Your task to perform on an android device: toggle notifications settings in the gmail app Image 0: 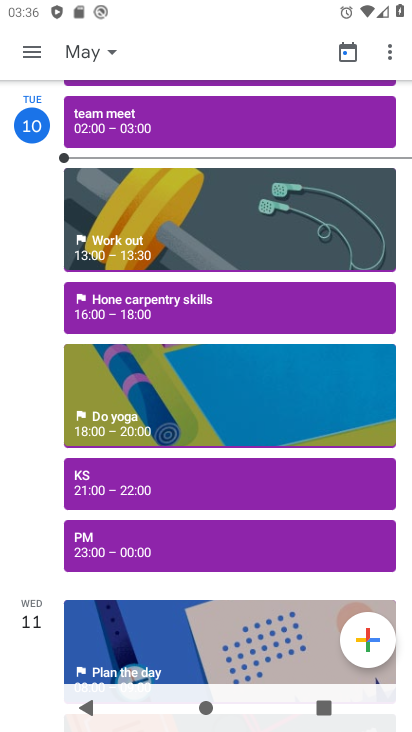
Step 0: press home button
Your task to perform on an android device: toggle notifications settings in the gmail app Image 1: 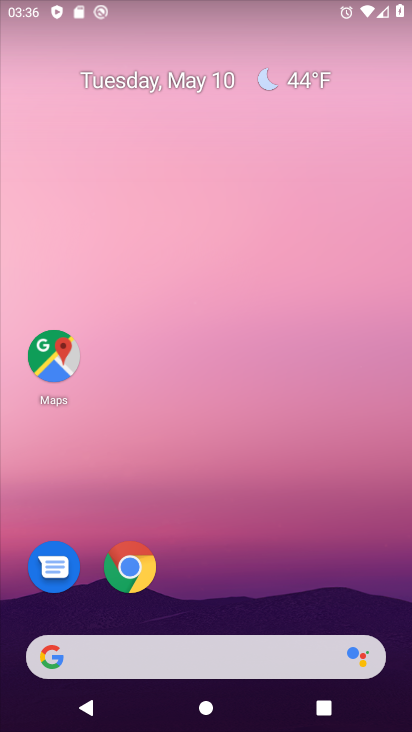
Step 1: drag from (209, 583) to (253, 111)
Your task to perform on an android device: toggle notifications settings in the gmail app Image 2: 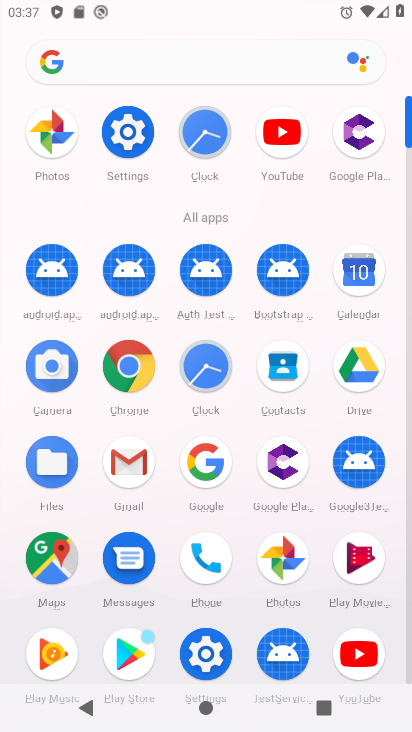
Step 2: click (127, 470)
Your task to perform on an android device: toggle notifications settings in the gmail app Image 3: 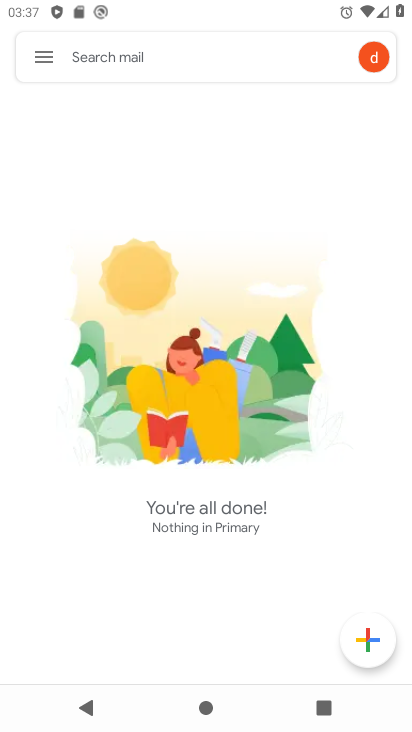
Step 3: click (43, 60)
Your task to perform on an android device: toggle notifications settings in the gmail app Image 4: 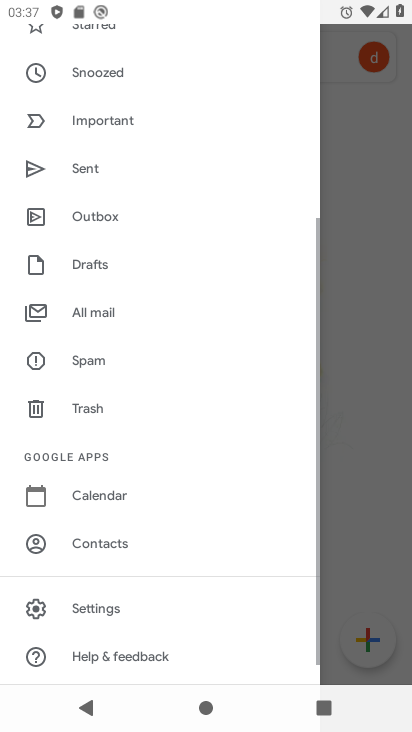
Step 4: click (97, 602)
Your task to perform on an android device: toggle notifications settings in the gmail app Image 5: 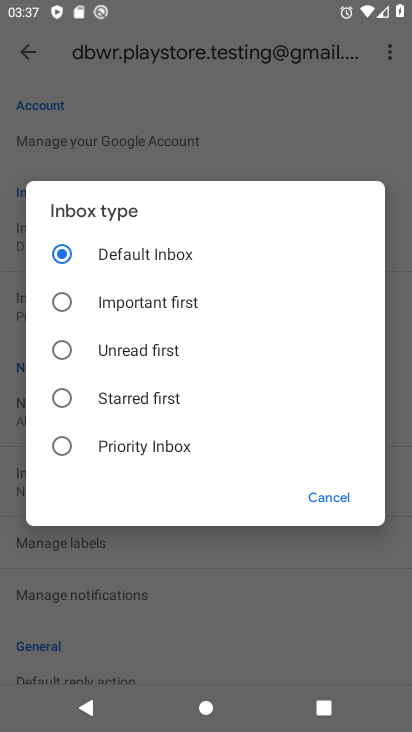
Step 5: click (330, 483)
Your task to perform on an android device: toggle notifications settings in the gmail app Image 6: 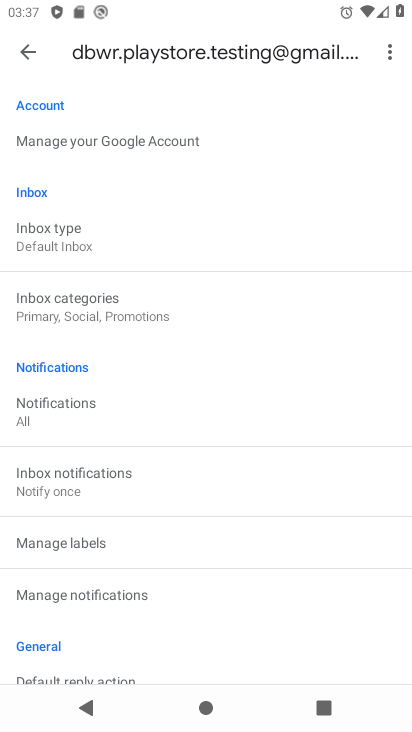
Step 6: click (73, 413)
Your task to perform on an android device: toggle notifications settings in the gmail app Image 7: 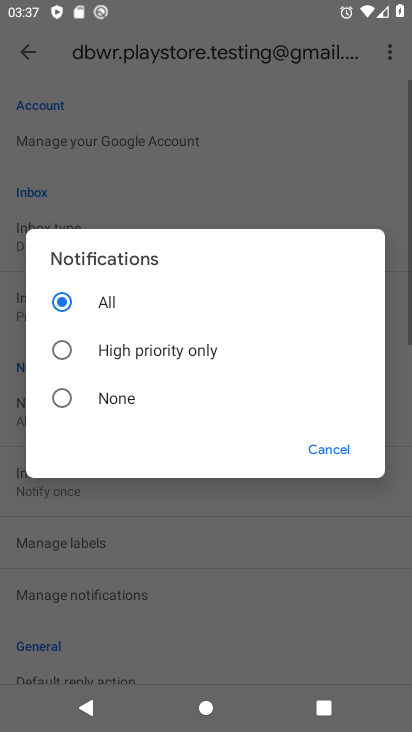
Step 7: click (72, 393)
Your task to perform on an android device: toggle notifications settings in the gmail app Image 8: 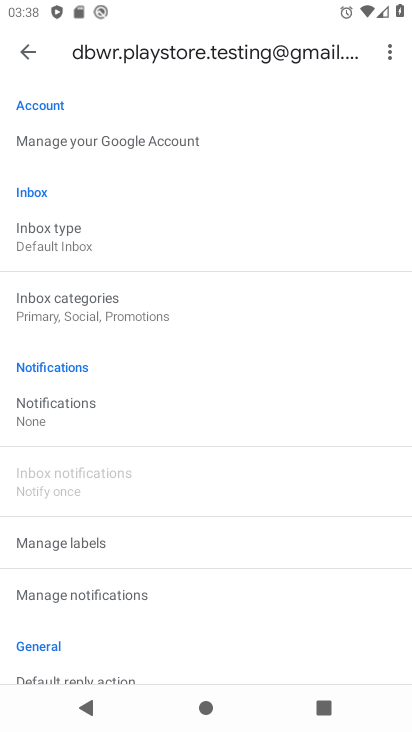
Step 8: task complete